Your task to perform on an android device: change text size in settings app Image 0: 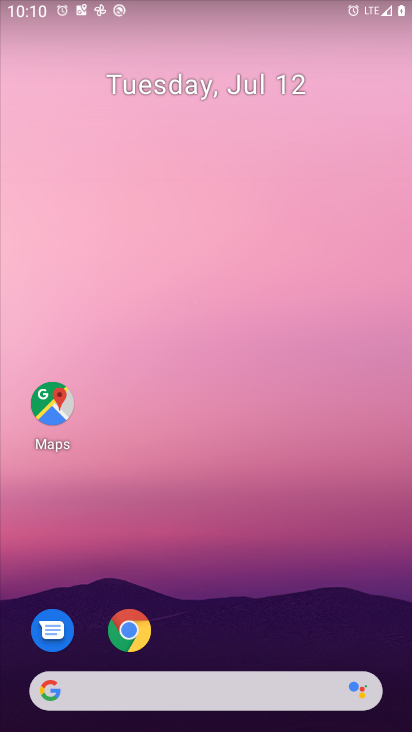
Step 0: press home button
Your task to perform on an android device: change text size in settings app Image 1: 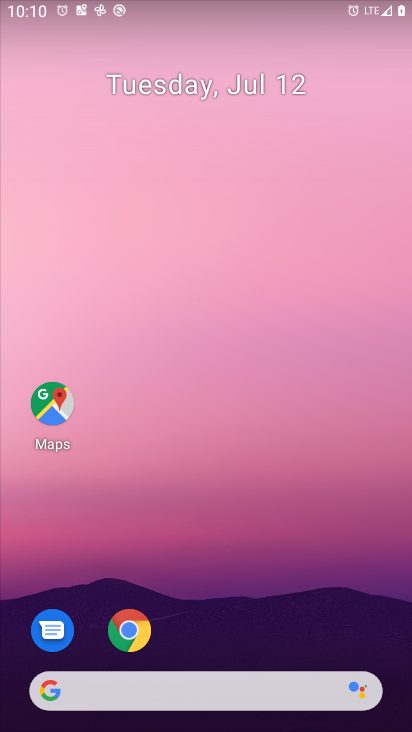
Step 1: drag from (281, 591) to (254, 54)
Your task to perform on an android device: change text size in settings app Image 2: 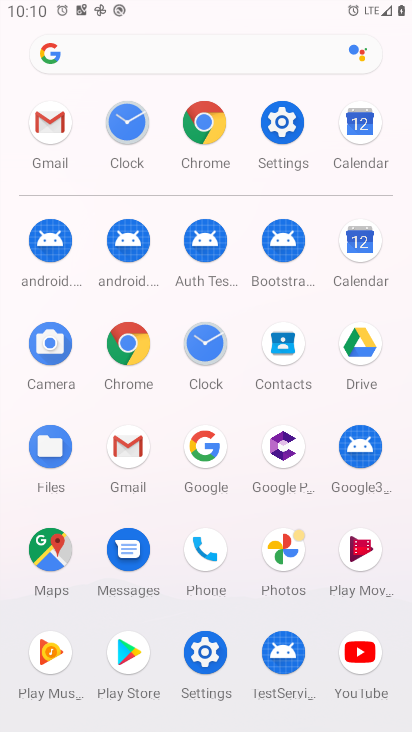
Step 2: click (283, 128)
Your task to perform on an android device: change text size in settings app Image 3: 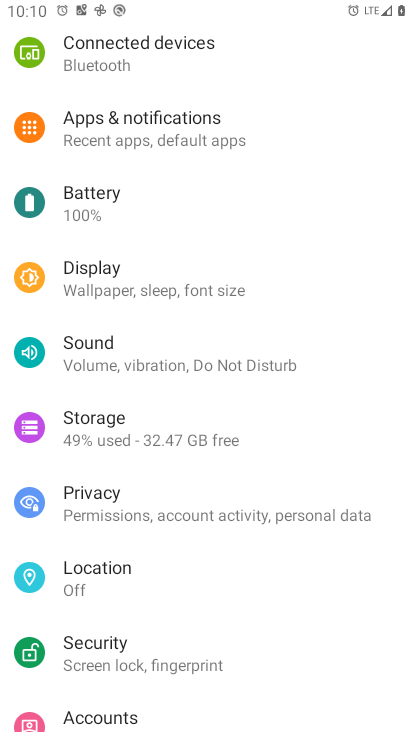
Step 3: click (172, 290)
Your task to perform on an android device: change text size in settings app Image 4: 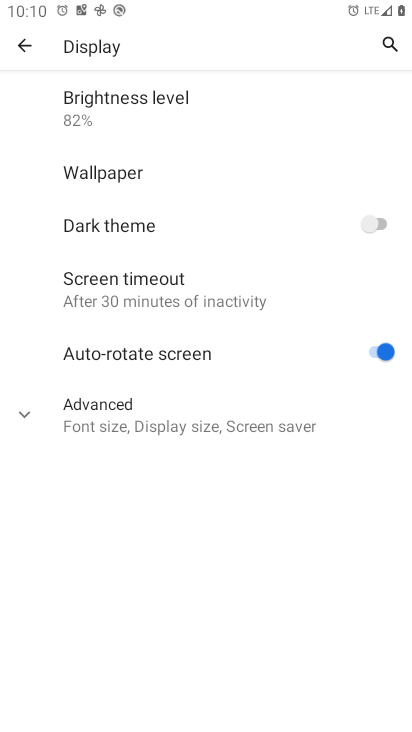
Step 4: click (28, 417)
Your task to perform on an android device: change text size in settings app Image 5: 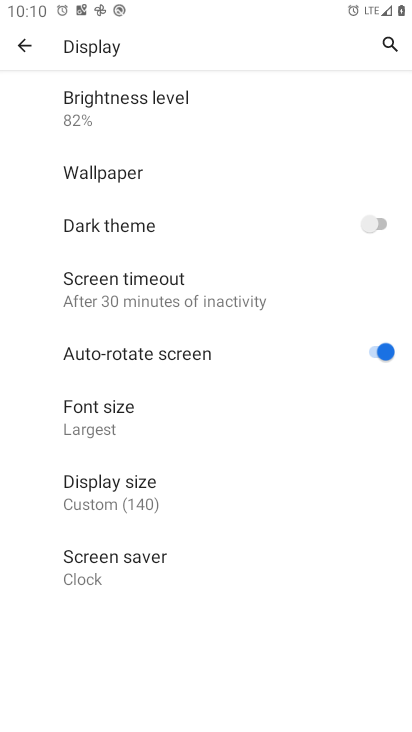
Step 5: click (106, 419)
Your task to perform on an android device: change text size in settings app Image 6: 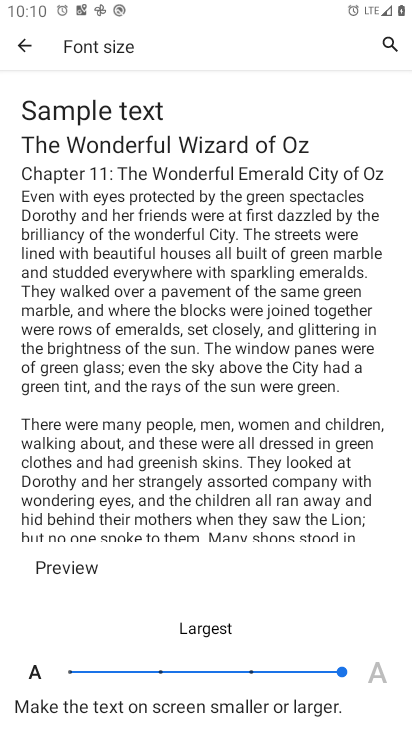
Step 6: click (253, 668)
Your task to perform on an android device: change text size in settings app Image 7: 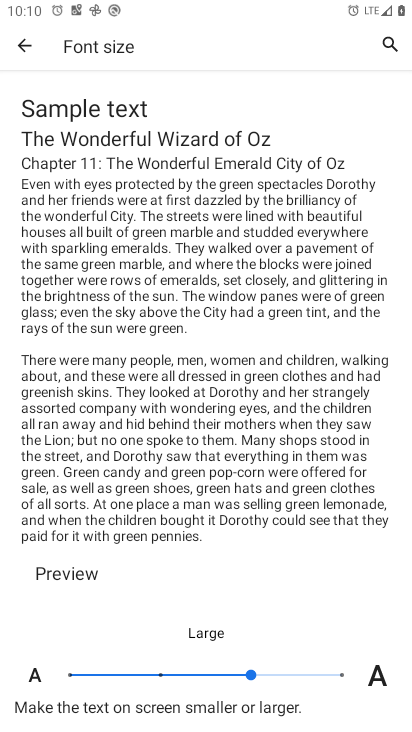
Step 7: task complete